Your task to perform on an android device: turn on location history Image 0: 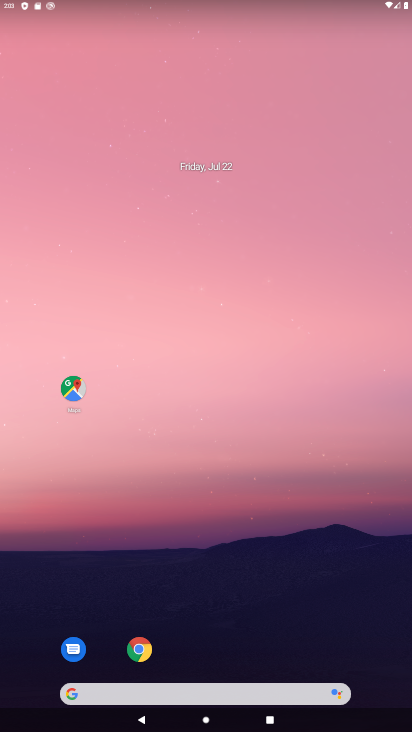
Step 0: drag from (191, 636) to (292, 151)
Your task to perform on an android device: turn on location history Image 1: 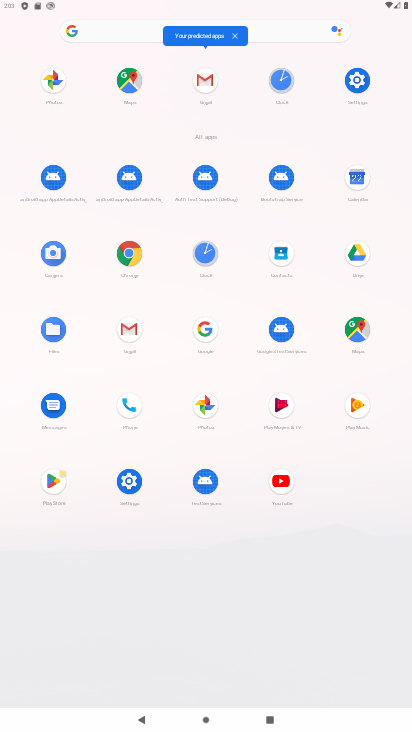
Step 1: click (130, 482)
Your task to perform on an android device: turn on location history Image 2: 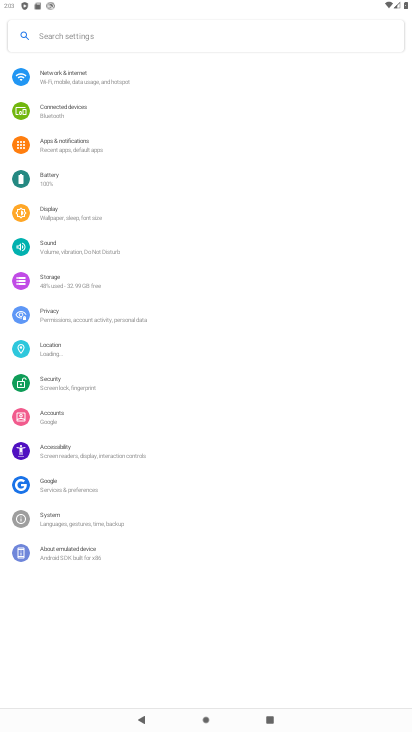
Step 2: drag from (137, 408) to (220, 250)
Your task to perform on an android device: turn on location history Image 3: 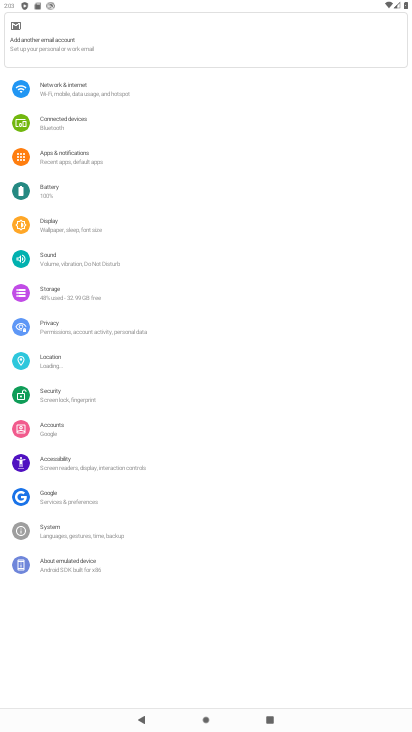
Step 3: click (91, 357)
Your task to perform on an android device: turn on location history Image 4: 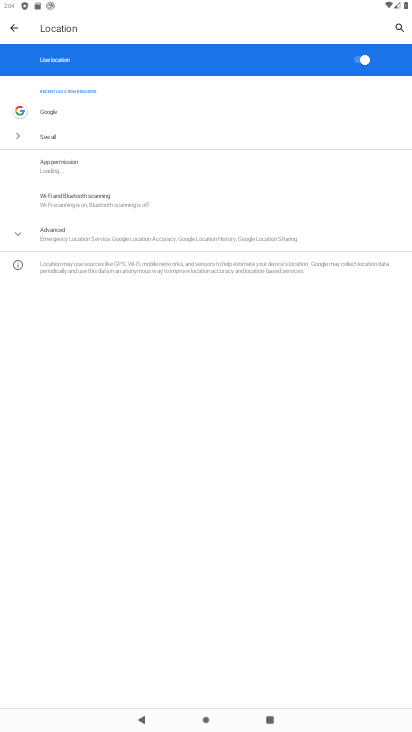
Step 4: click (58, 238)
Your task to perform on an android device: turn on location history Image 5: 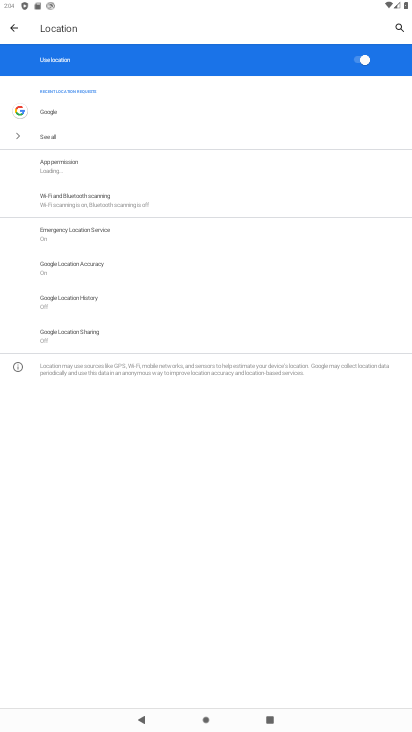
Step 5: click (107, 302)
Your task to perform on an android device: turn on location history Image 6: 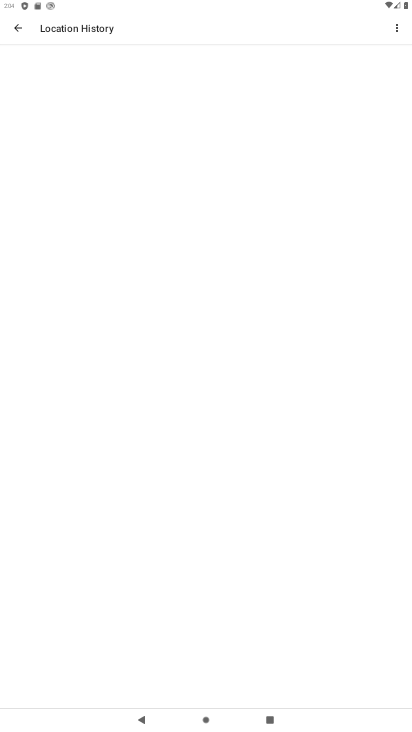
Step 6: drag from (155, 603) to (251, 331)
Your task to perform on an android device: turn on location history Image 7: 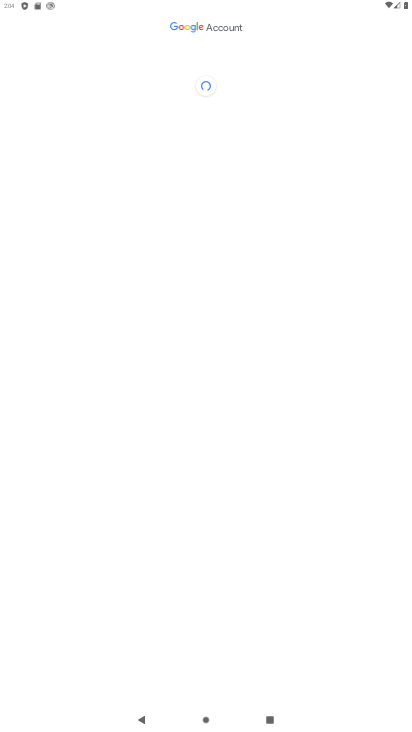
Step 7: drag from (196, 568) to (229, 263)
Your task to perform on an android device: turn on location history Image 8: 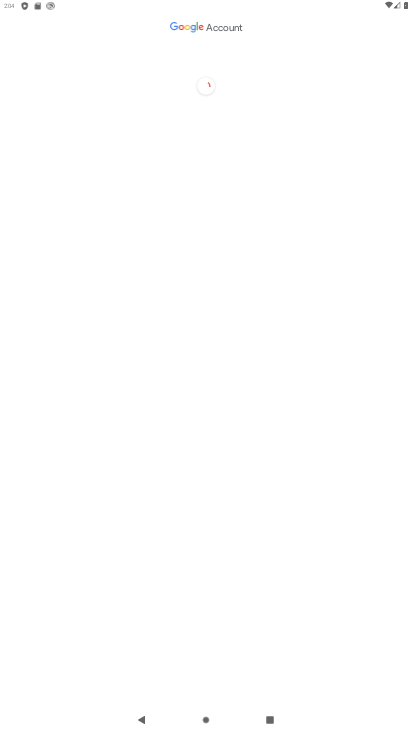
Step 8: drag from (177, 563) to (234, 351)
Your task to perform on an android device: turn on location history Image 9: 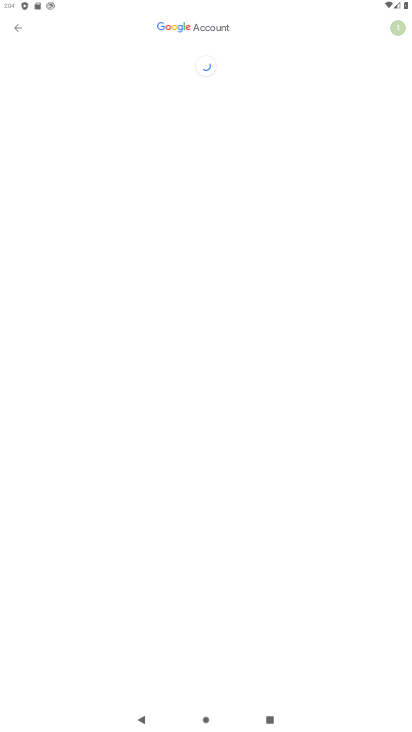
Step 9: drag from (224, 563) to (283, 367)
Your task to perform on an android device: turn on location history Image 10: 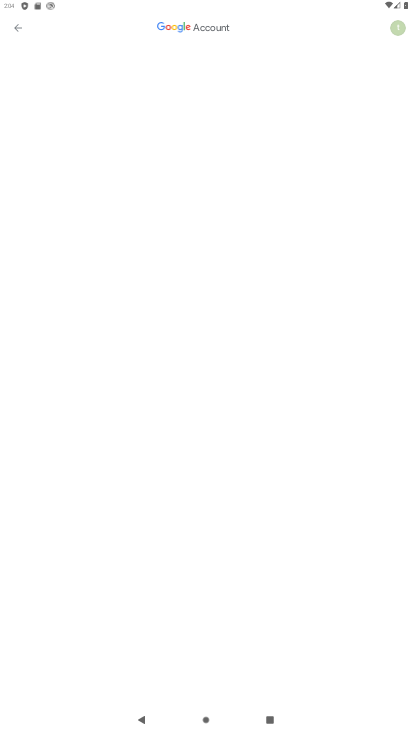
Step 10: drag from (263, 627) to (322, 311)
Your task to perform on an android device: turn on location history Image 11: 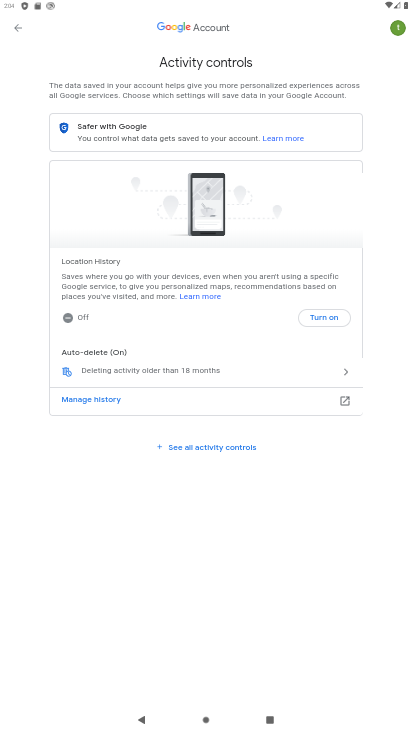
Step 11: click (317, 314)
Your task to perform on an android device: turn on location history Image 12: 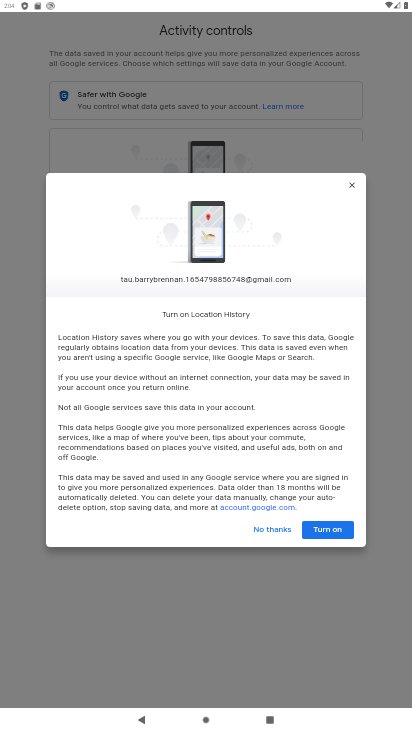
Step 12: click (346, 523)
Your task to perform on an android device: turn on location history Image 13: 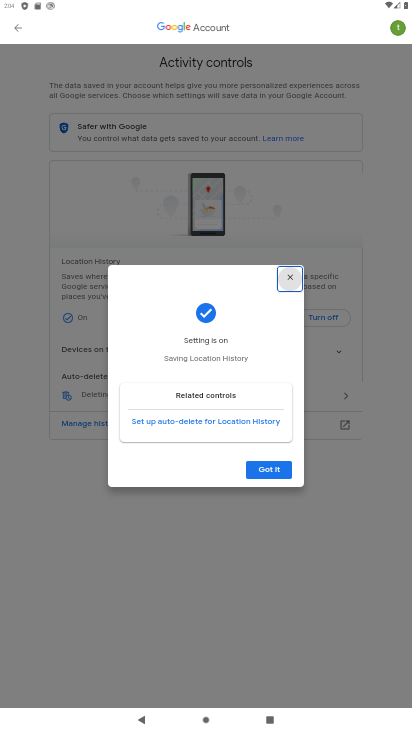
Step 13: click (275, 479)
Your task to perform on an android device: turn on location history Image 14: 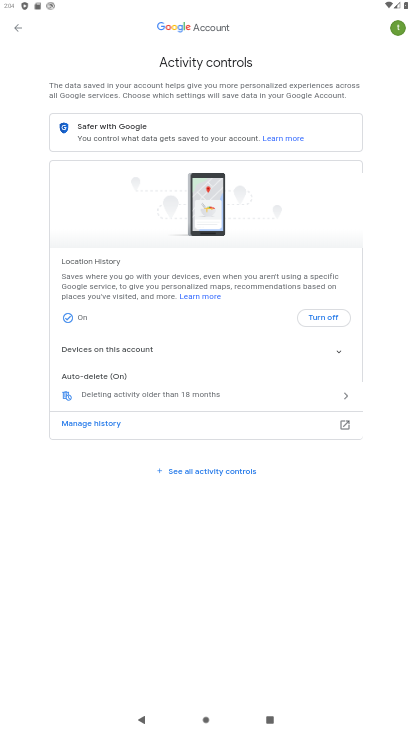
Step 14: task complete